Your task to perform on an android device: toggle pop-ups in chrome Image 0: 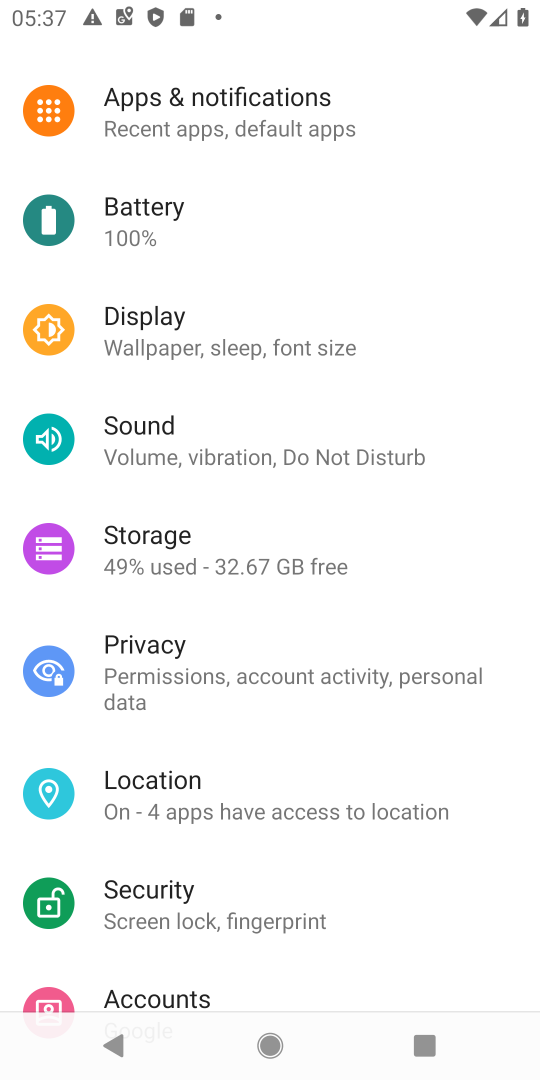
Step 0: press home button
Your task to perform on an android device: toggle pop-ups in chrome Image 1: 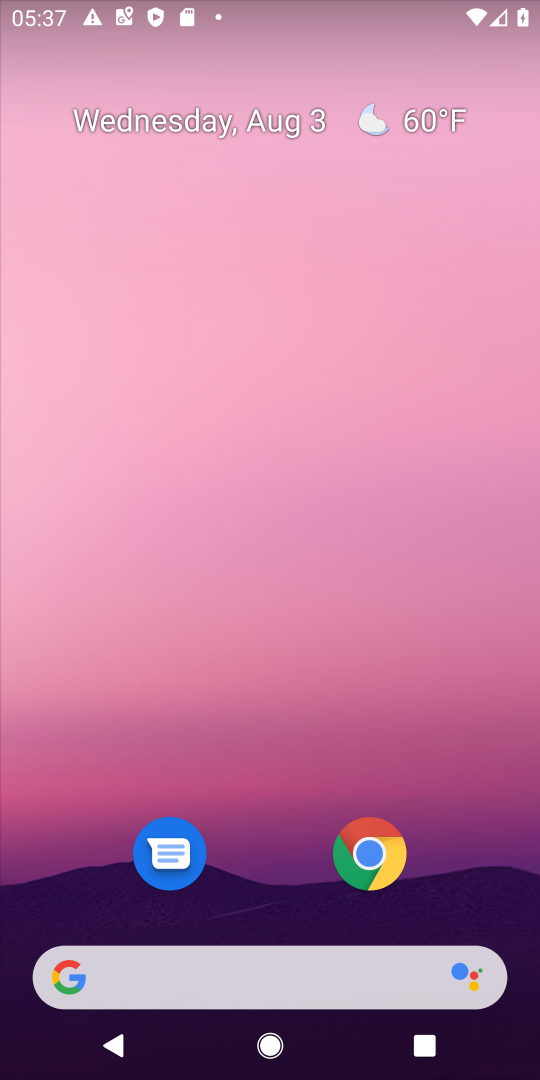
Step 1: drag from (267, 567) to (246, 1)
Your task to perform on an android device: toggle pop-ups in chrome Image 2: 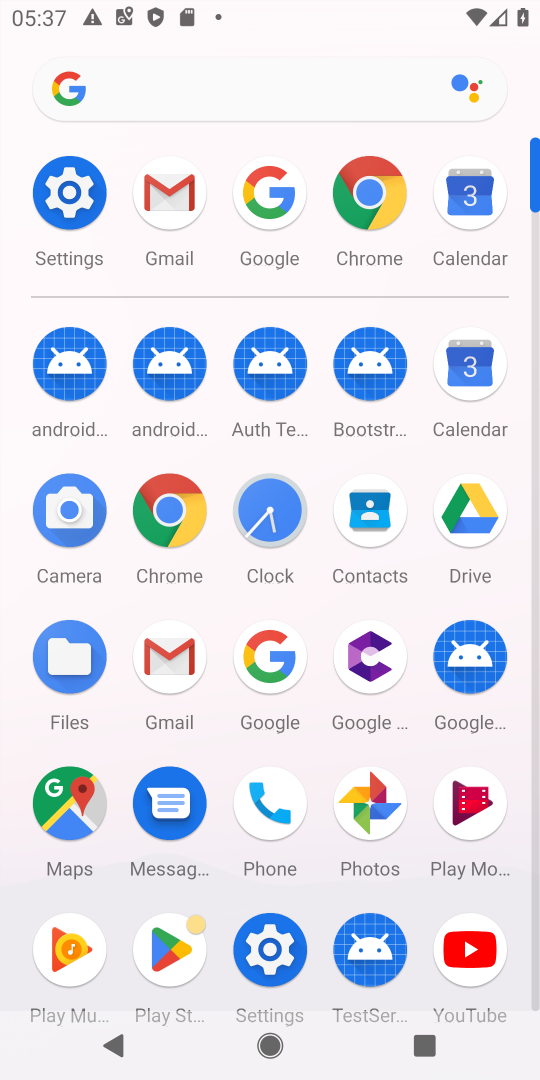
Step 2: click (168, 521)
Your task to perform on an android device: toggle pop-ups in chrome Image 3: 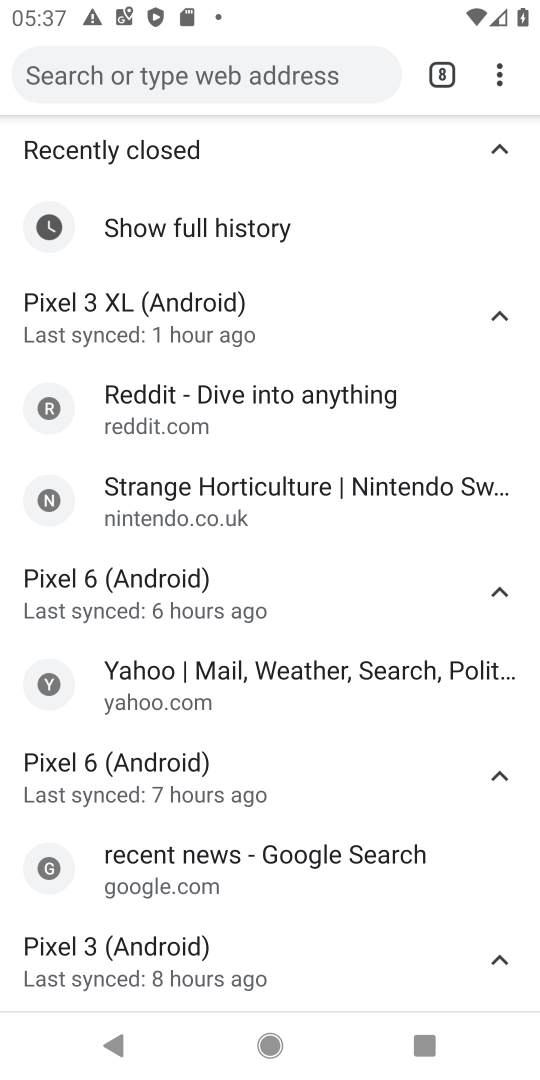
Step 3: click (497, 83)
Your task to perform on an android device: toggle pop-ups in chrome Image 4: 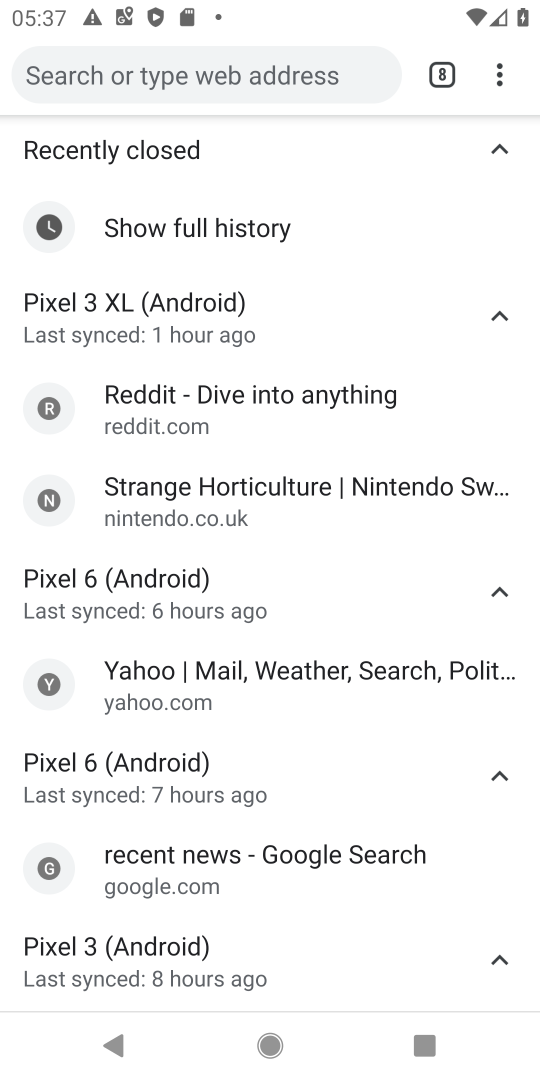
Step 4: click (494, 84)
Your task to perform on an android device: toggle pop-ups in chrome Image 5: 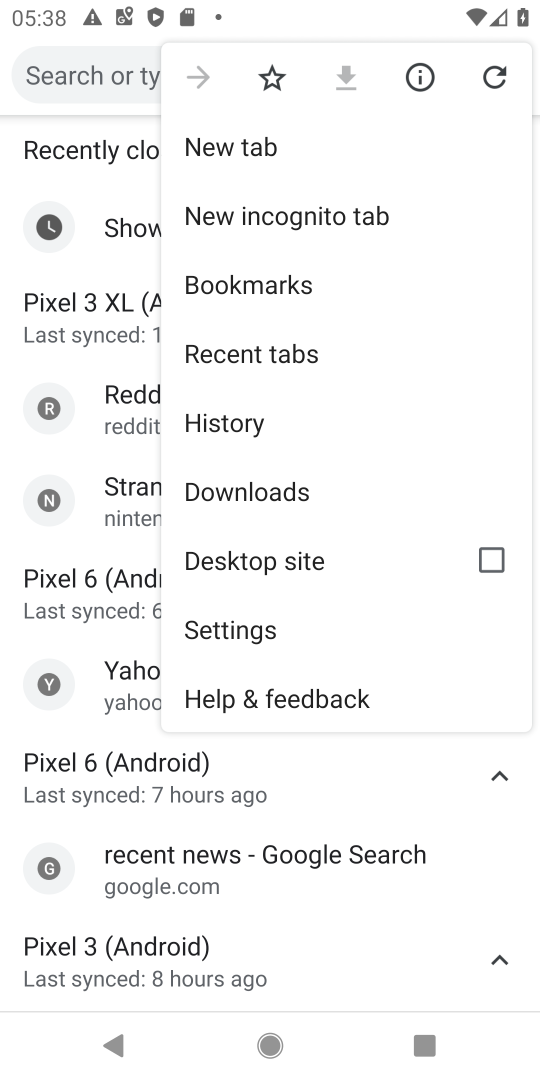
Step 5: click (243, 634)
Your task to perform on an android device: toggle pop-ups in chrome Image 6: 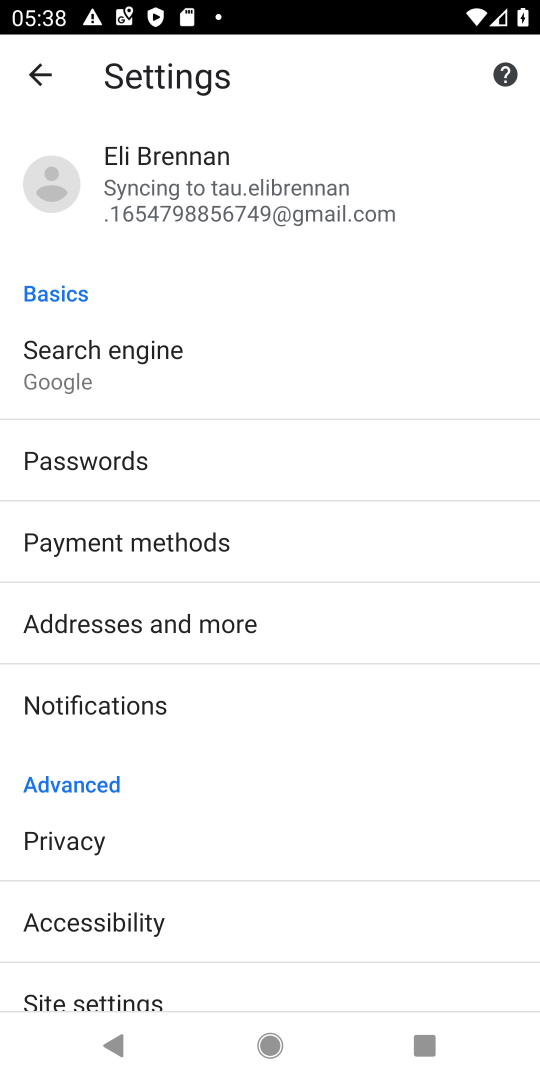
Step 6: drag from (149, 957) to (156, 390)
Your task to perform on an android device: toggle pop-ups in chrome Image 7: 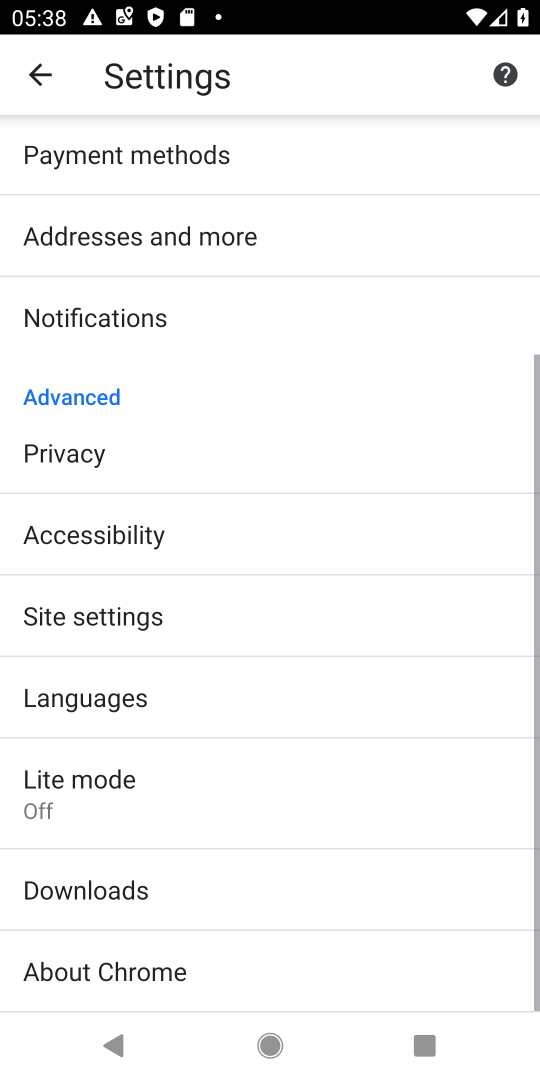
Step 7: click (66, 620)
Your task to perform on an android device: toggle pop-ups in chrome Image 8: 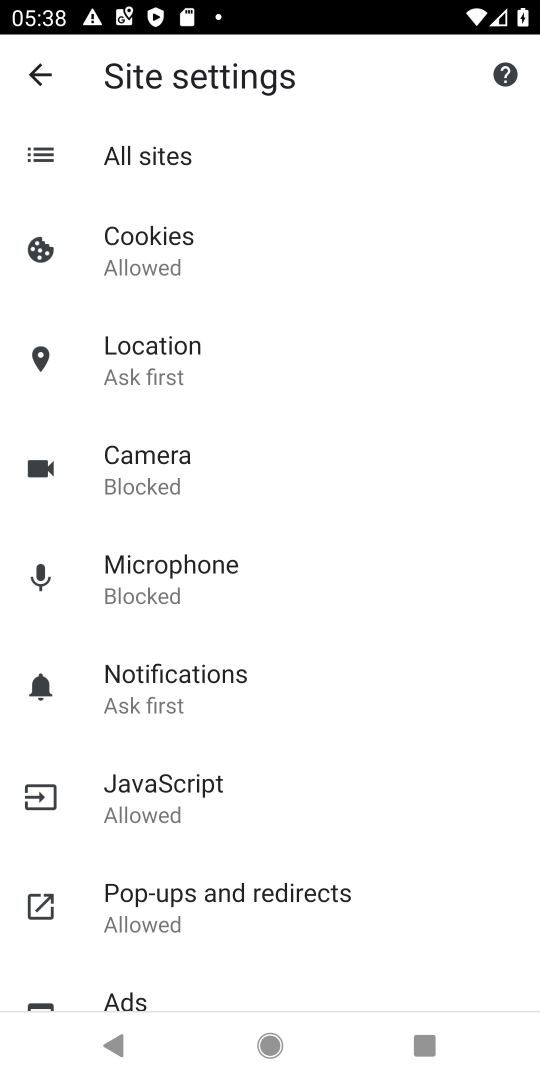
Step 8: click (163, 896)
Your task to perform on an android device: toggle pop-ups in chrome Image 9: 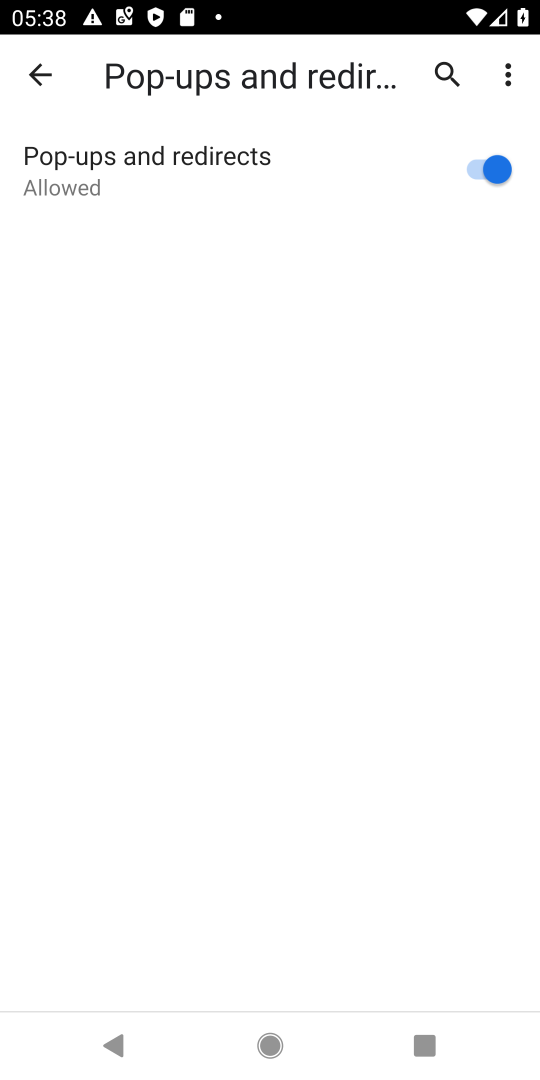
Step 9: task complete